Your task to perform on an android device: find which apps use the phone's location Image 0: 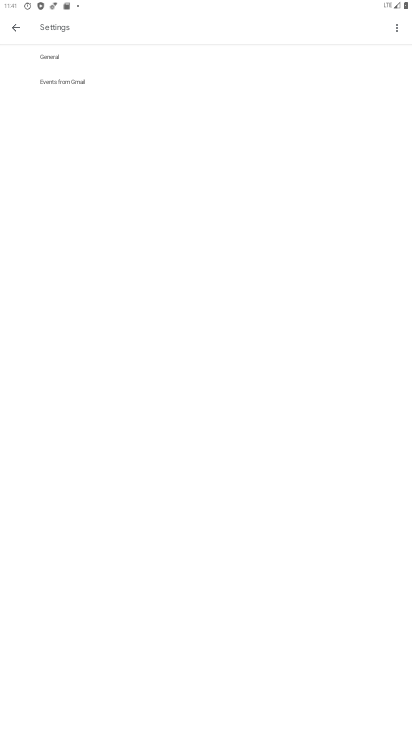
Step 0: press home button
Your task to perform on an android device: find which apps use the phone's location Image 1: 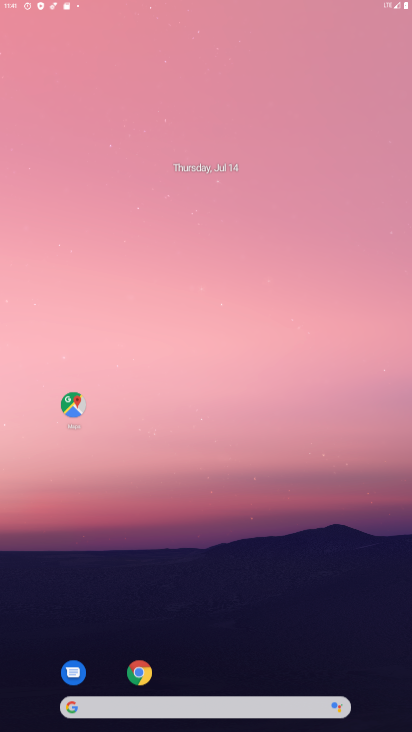
Step 1: drag from (353, 93) to (366, 58)
Your task to perform on an android device: find which apps use the phone's location Image 2: 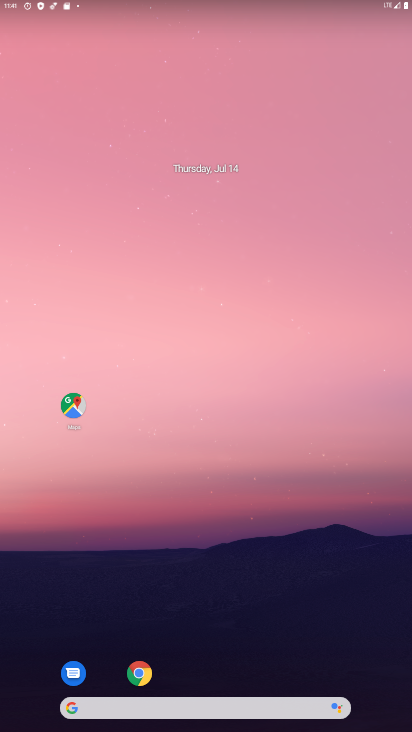
Step 2: drag from (193, 641) to (259, 84)
Your task to perform on an android device: find which apps use the phone's location Image 3: 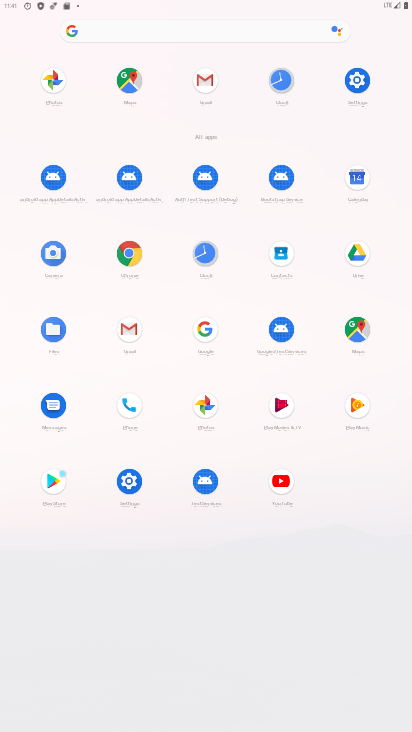
Step 3: click (48, 475)
Your task to perform on an android device: find which apps use the phone's location Image 4: 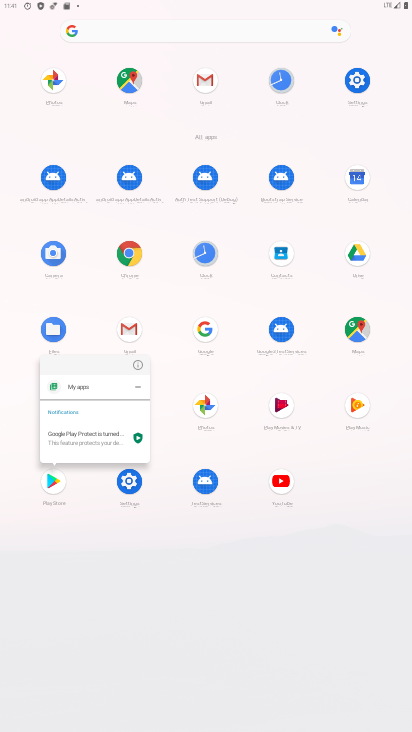
Step 4: click (136, 365)
Your task to perform on an android device: find which apps use the phone's location Image 5: 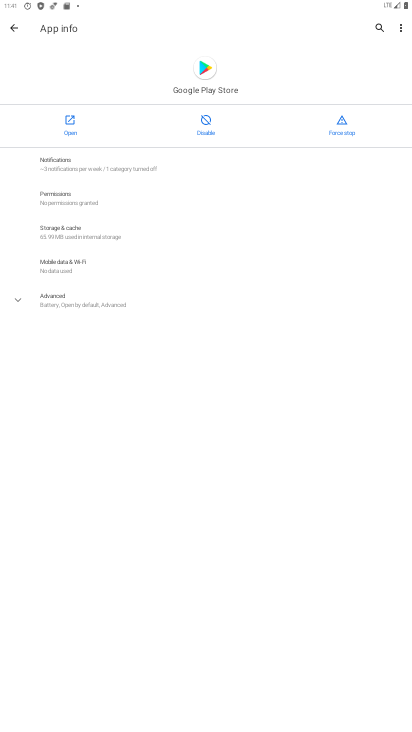
Step 5: press home button
Your task to perform on an android device: find which apps use the phone's location Image 6: 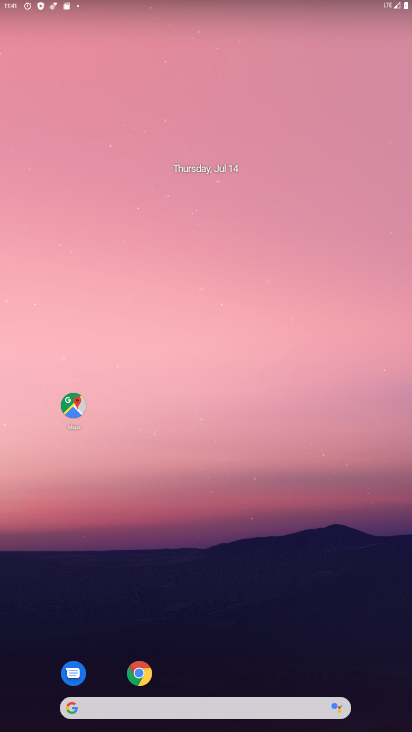
Step 6: drag from (211, 561) to (327, 171)
Your task to perform on an android device: find which apps use the phone's location Image 7: 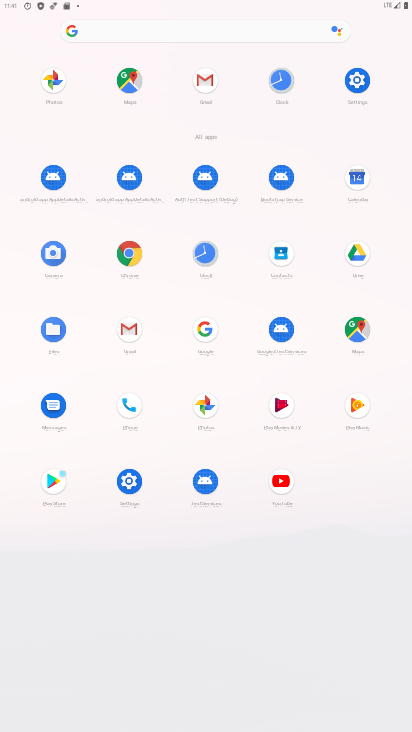
Step 7: click (357, 76)
Your task to perform on an android device: find which apps use the phone's location Image 8: 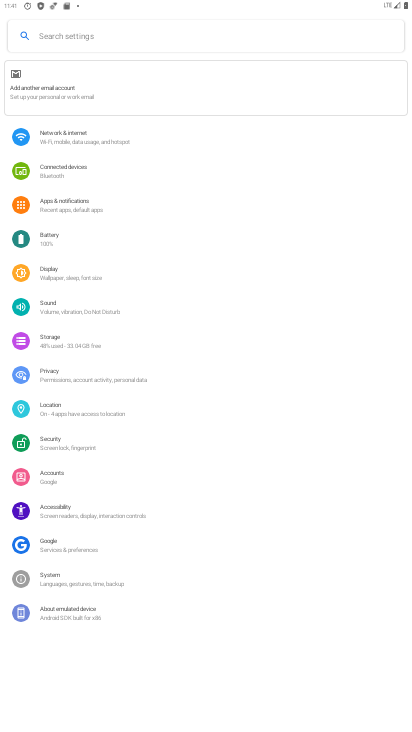
Step 8: click (69, 408)
Your task to perform on an android device: find which apps use the phone's location Image 9: 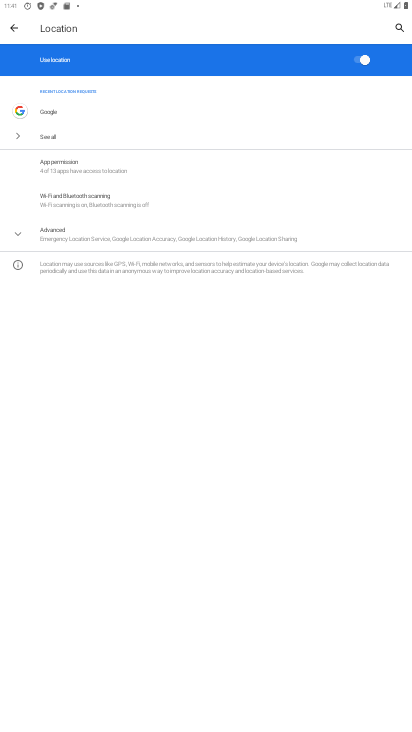
Step 9: click (54, 168)
Your task to perform on an android device: find which apps use the phone's location Image 10: 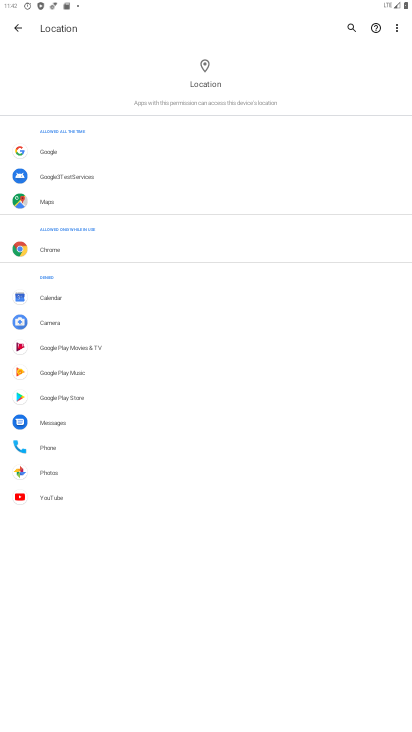
Step 10: task complete